Your task to perform on an android device: star an email in the gmail app Image 0: 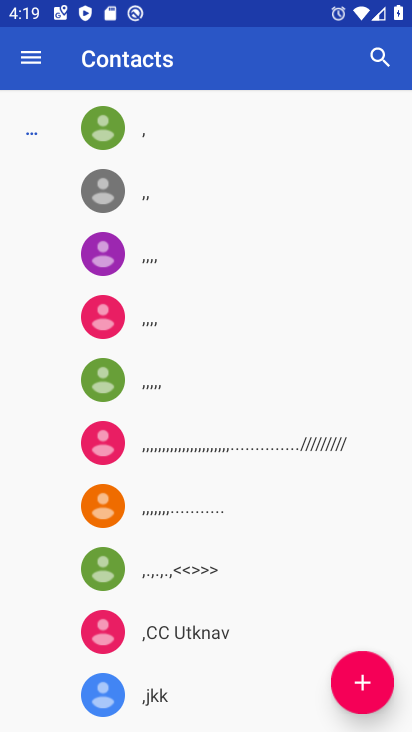
Step 0: press home button
Your task to perform on an android device: star an email in the gmail app Image 1: 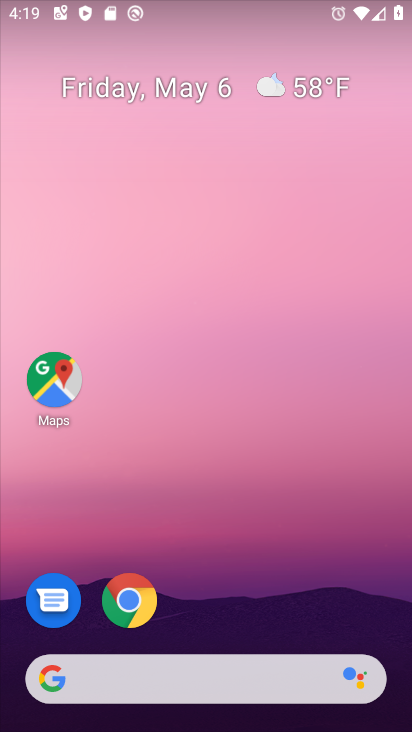
Step 1: drag from (203, 641) to (228, 133)
Your task to perform on an android device: star an email in the gmail app Image 2: 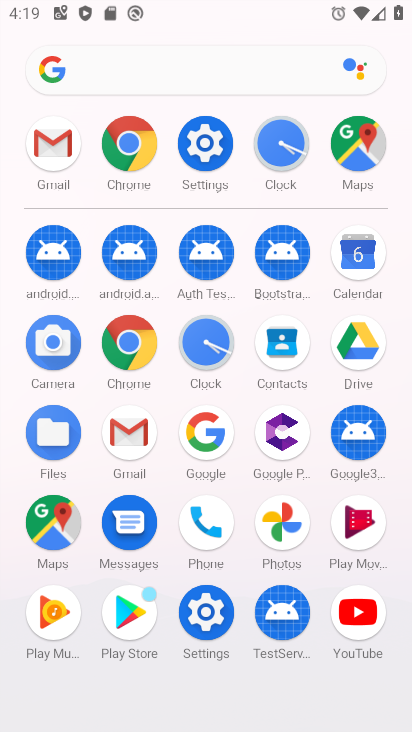
Step 2: click (139, 435)
Your task to perform on an android device: star an email in the gmail app Image 3: 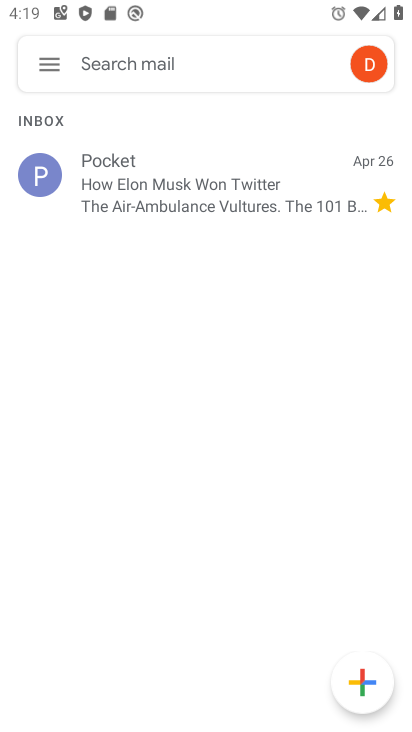
Step 3: click (43, 58)
Your task to perform on an android device: star an email in the gmail app Image 4: 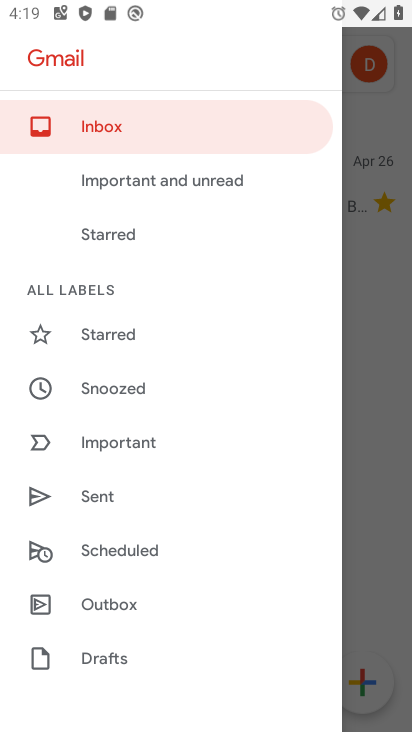
Step 4: drag from (130, 582) to (189, 273)
Your task to perform on an android device: star an email in the gmail app Image 5: 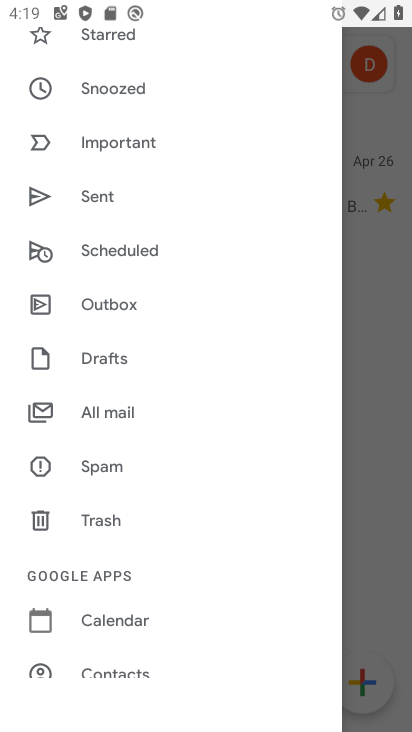
Step 5: click (106, 414)
Your task to perform on an android device: star an email in the gmail app Image 6: 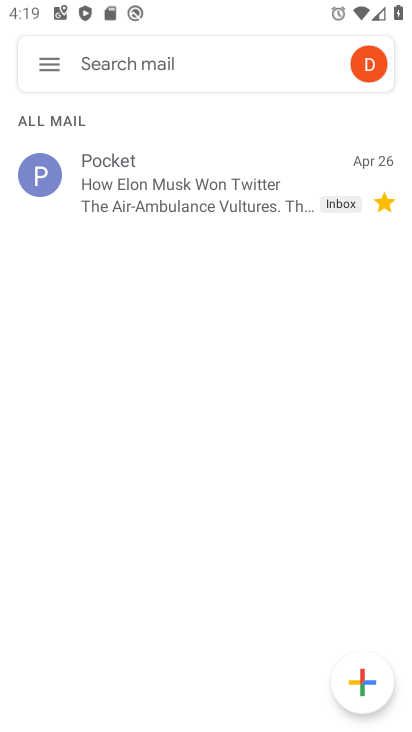
Step 6: task complete